Your task to perform on an android device: toggle wifi Image 0: 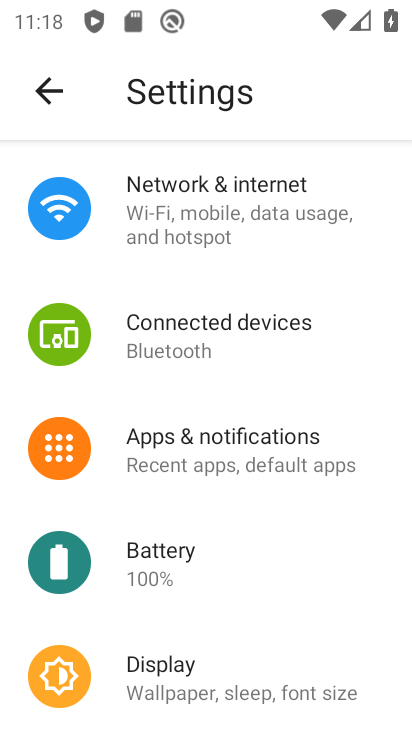
Step 0: click (255, 198)
Your task to perform on an android device: toggle wifi Image 1: 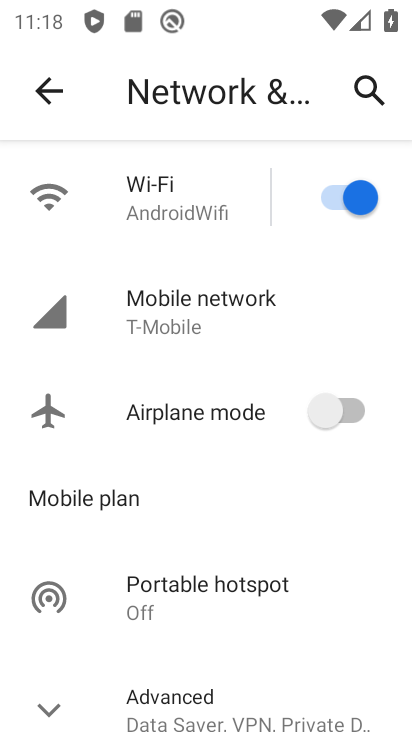
Step 1: click (378, 196)
Your task to perform on an android device: toggle wifi Image 2: 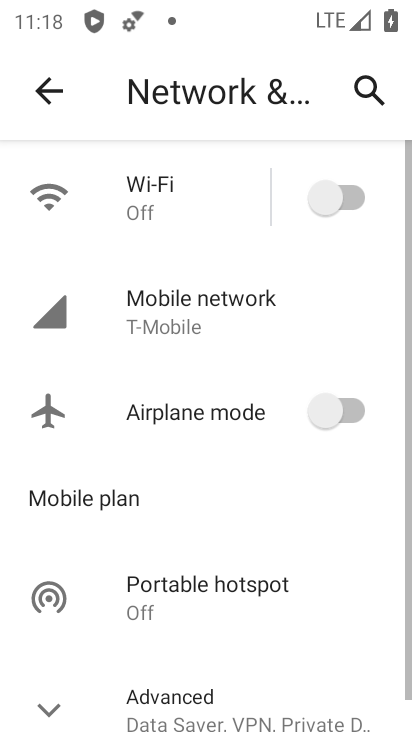
Step 2: task complete